Your task to perform on an android device: toggle improve location accuracy Image 0: 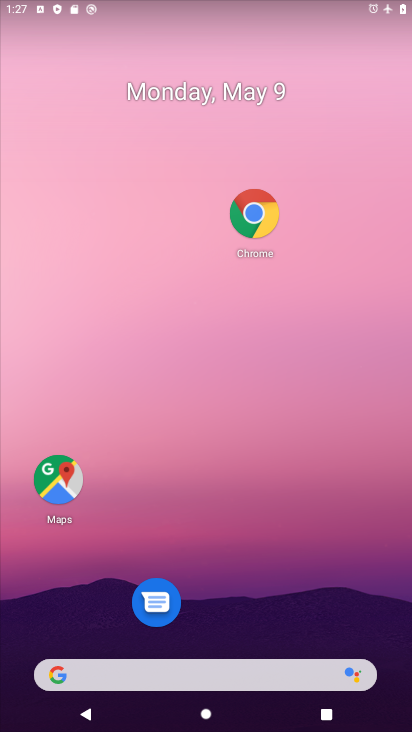
Step 0: drag from (302, 594) to (267, 124)
Your task to perform on an android device: toggle improve location accuracy Image 1: 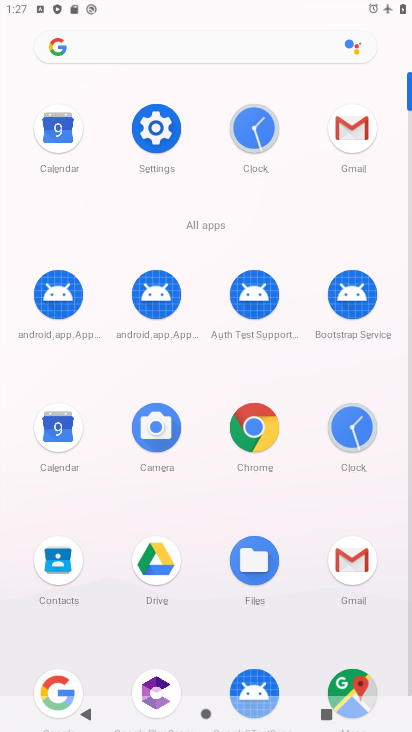
Step 1: click (161, 145)
Your task to perform on an android device: toggle improve location accuracy Image 2: 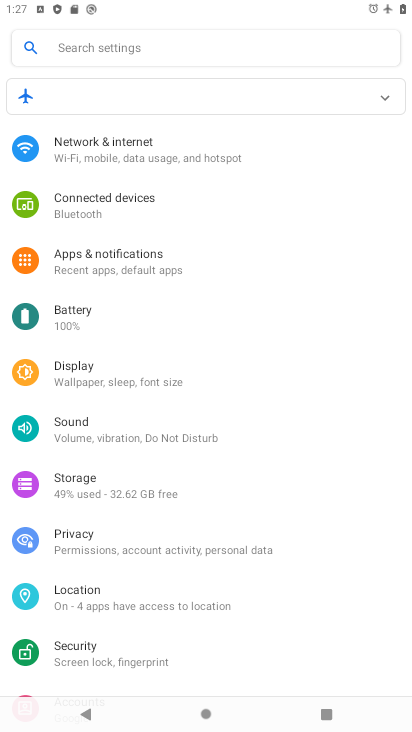
Step 2: click (112, 617)
Your task to perform on an android device: toggle improve location accuracy Image 3: 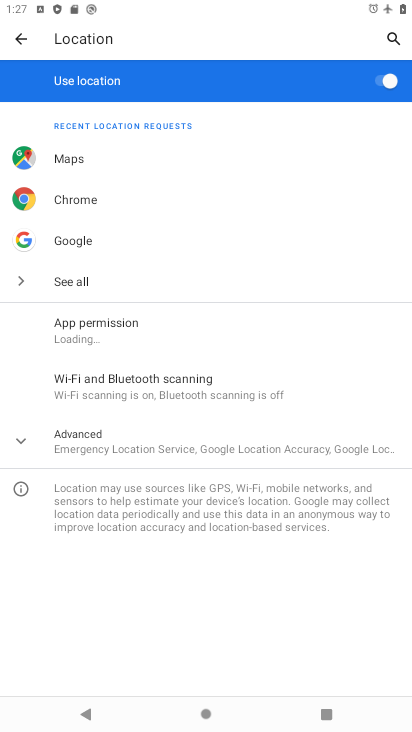
Step 3: click (212, 458)
Your task to perform on an android device: toggle improve location accuracy Image 4: 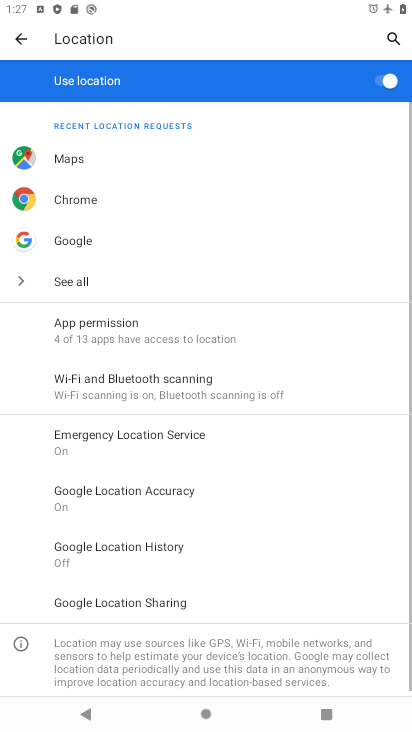
Step 4: click (280, 505)
Your task to perform on an android device: toggle improve location accuracy Image 5: 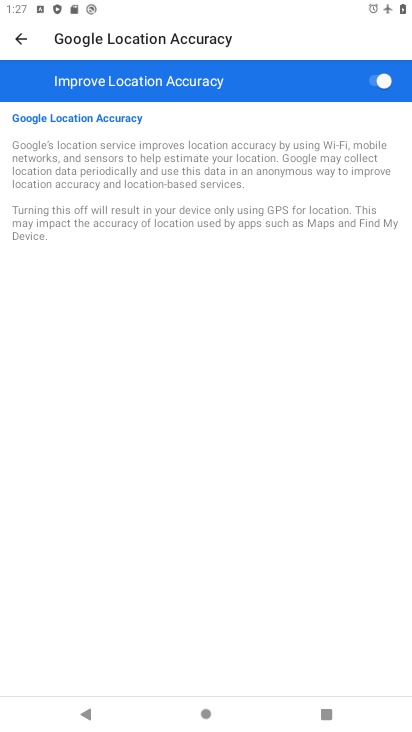
Step 5: click (372, 77)
Your task to perform on an android device: toggle improve location accuracy Image 6: 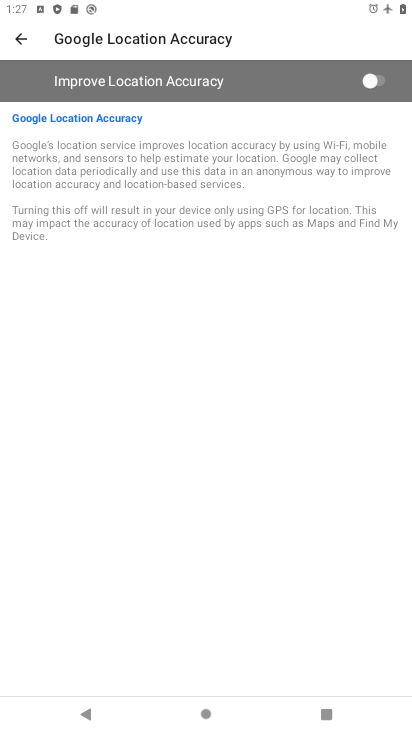
Step 6: task complete